Your task to perform on an android device: Open Wikipedia Image 0: 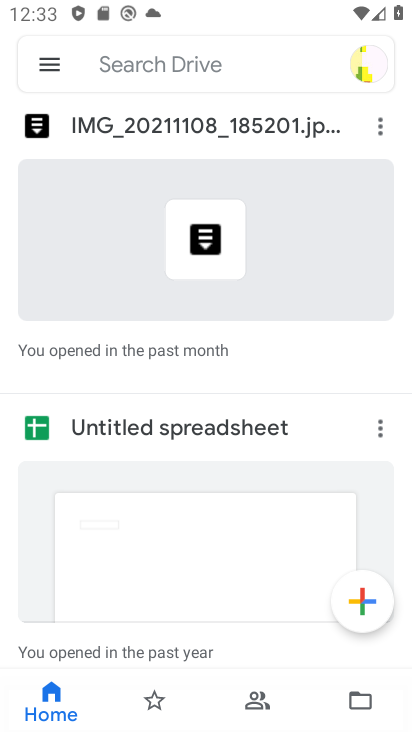
Step 0: press home button
Your task to perform on an android device: Open Wikipedia Image 1: 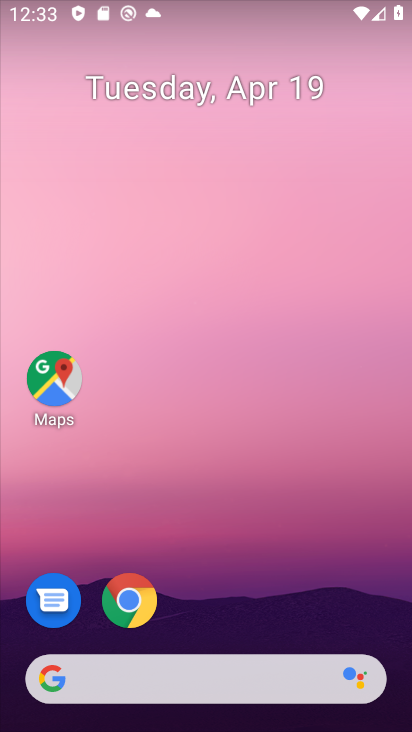
Step 1: click (148, 606)
Your task to perform on an android device: Open Wikipedia Image 2: 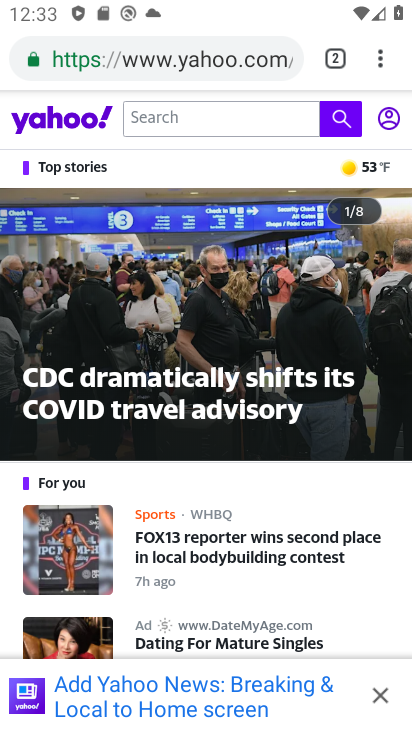
Step 2: click (332, 53)
Your task to perform on an android device: Open Wikipedia Image 3: 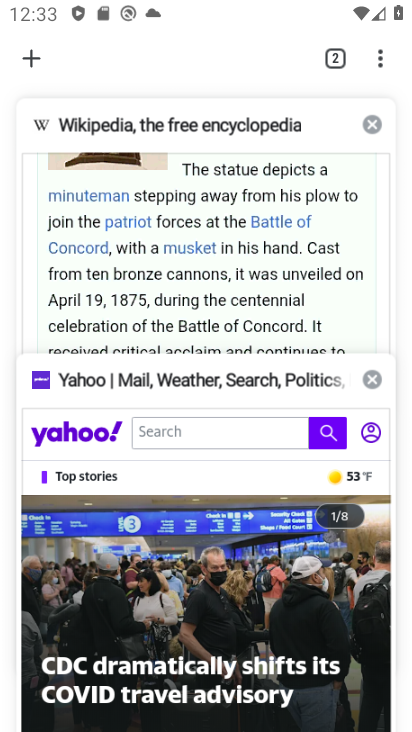
Step 3: click (371, 112)
Your task to perform on an android device: Open Wikipedia Image 4: 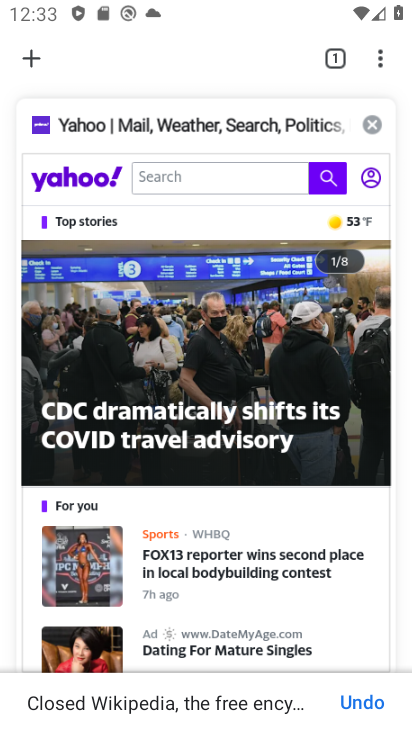
Step 4: click (371, 112)
Your task to perform on an android device: Open Wikipedia Image 5: 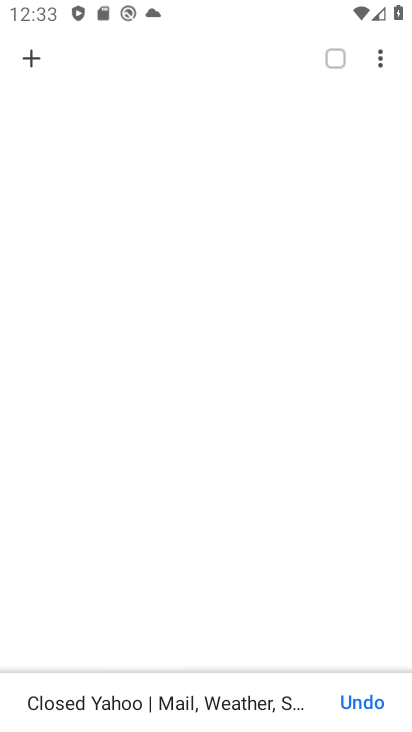
Step 5: click (29, 61)
Your task to perform on an android device: Open Wikipedia Image 6: 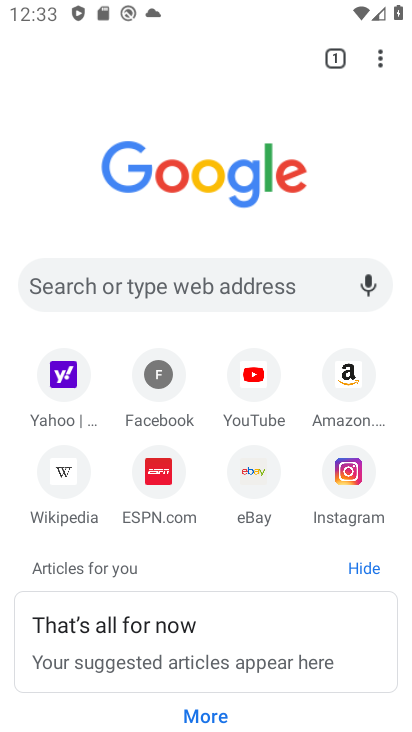
Step 6: click (70, 478)
Your task to perform on an android device: Open Wikipedia Image 7: 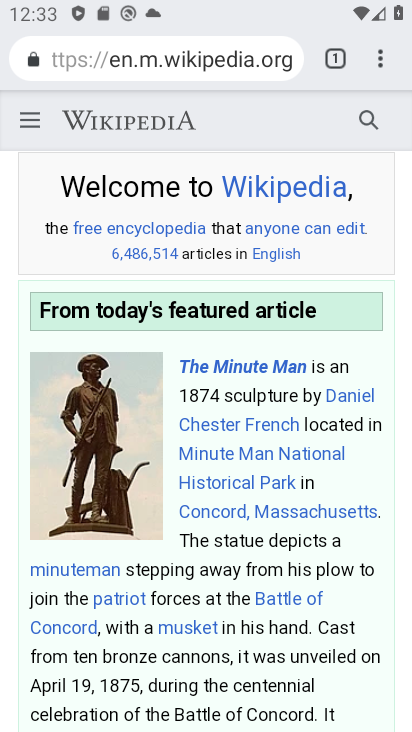
Step 7: task complete